Your task to perform on an android device: What is the recent news? Image 0: 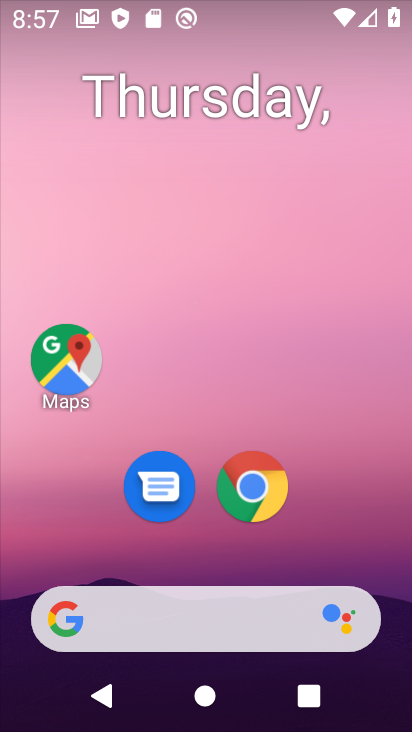
Step 0: click (185, 642)
Your task to perform on an android device: What is the recent news? Image 1: 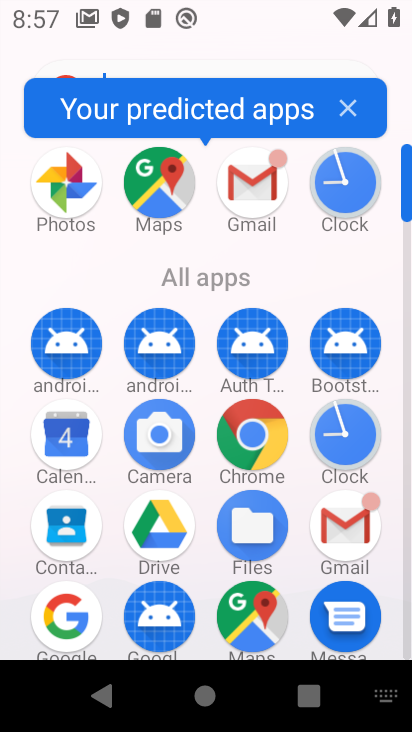
Step 1: click (260, 460)
Your task to perform on an android device: What is the recent news? Image 2: 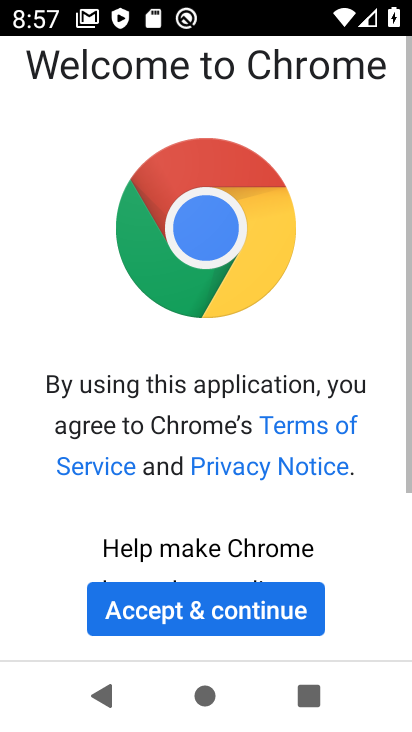
Step 2: click (178, 618)
Your task to perform on an android device: What is the recent news? Image 3: 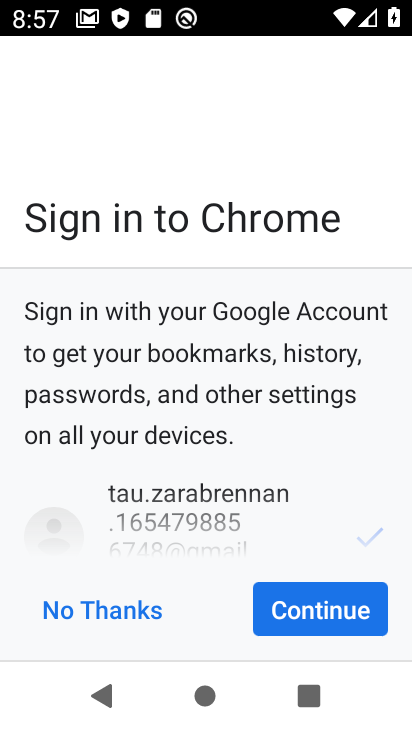
Step 3: click (307, 612)
Your task to perform on an android device: What is the recent news? Image 4: 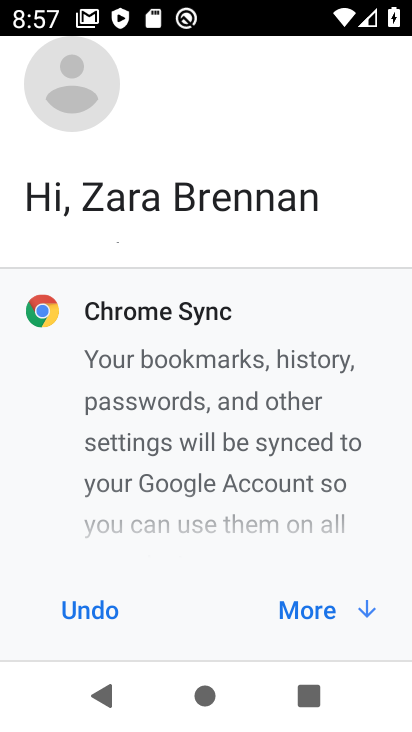
Step 4: click (307, 612)
Your task to perform on an android device: What is the recent news? Image 5: 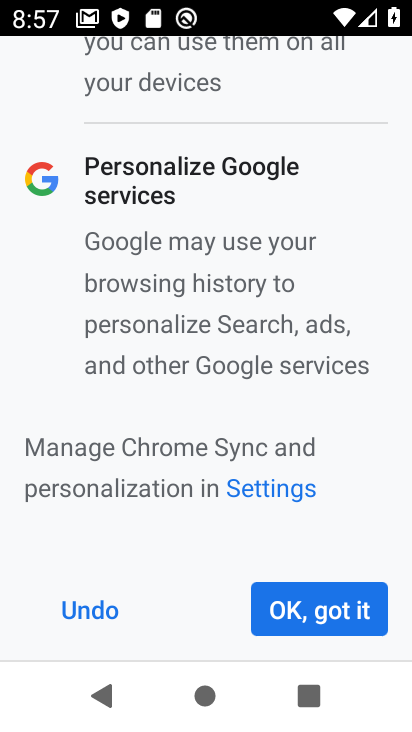
Step 5: click (325, 615)
Your task to perform on an android device: What is the recent news? Image 6: 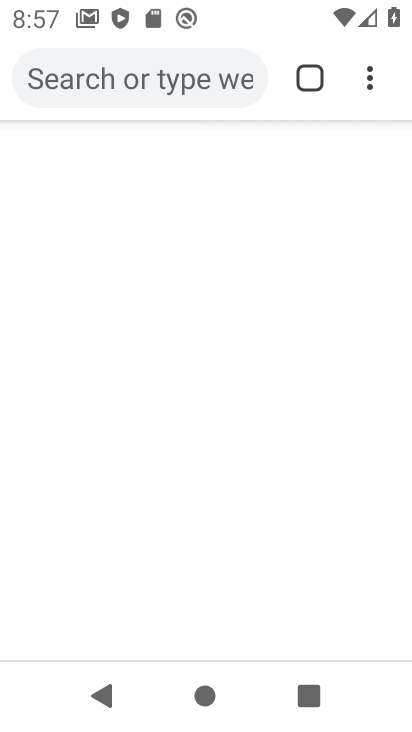
Step 6: click (71, 75)
Your task to perform on an android device: What is the recent news? Image 7: 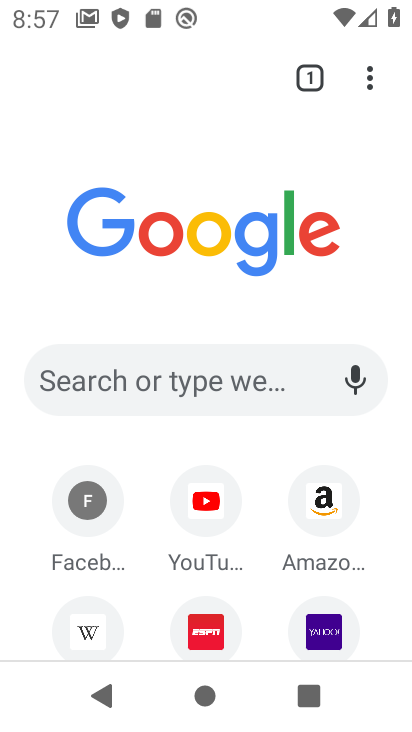
Step 7: click (142, 411)
Your task to perform on an android device: What is the recent news? Image 8: 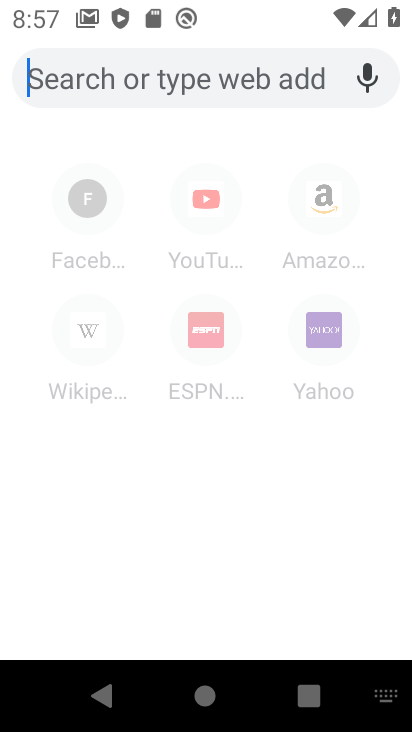
Step 8: type "What is the recent news?"
Your task to perform on an android device: What is the recent news? Image 9: 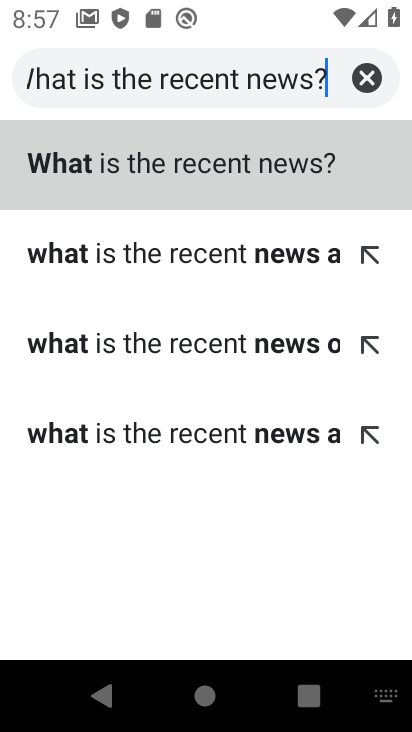
Step 9: press enter
Your task to perform on an android device: What is the recent news? Image 10: 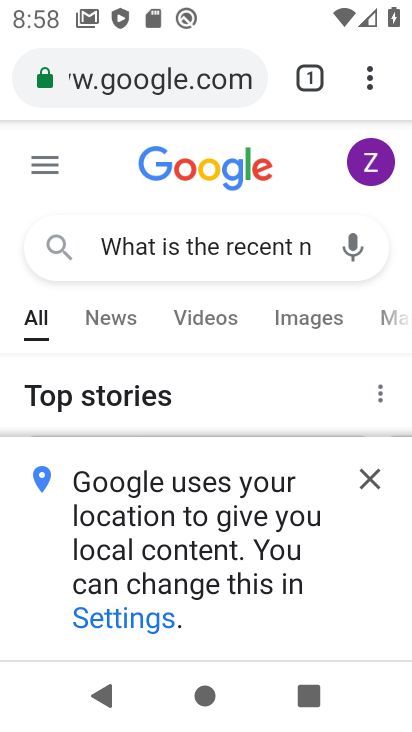
Step 10: task complete